Your task to perform on an android device: turn on wifi Image 0: 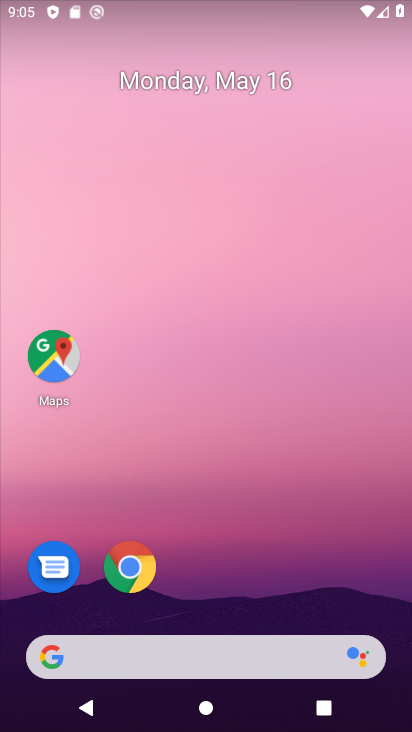
Step 0: drag from (204, 599) to (174, 80)
Your task to perform on an android device: turn on wifi Image 1: 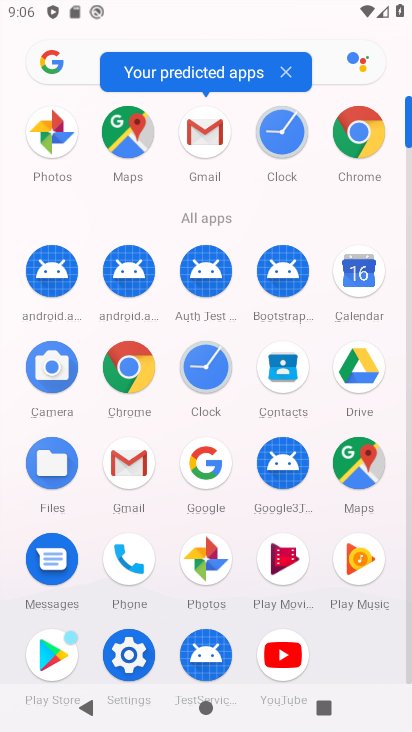
Step 1: click (120, 667)
Your task to perform on an android device: turn on wifi Image 2: 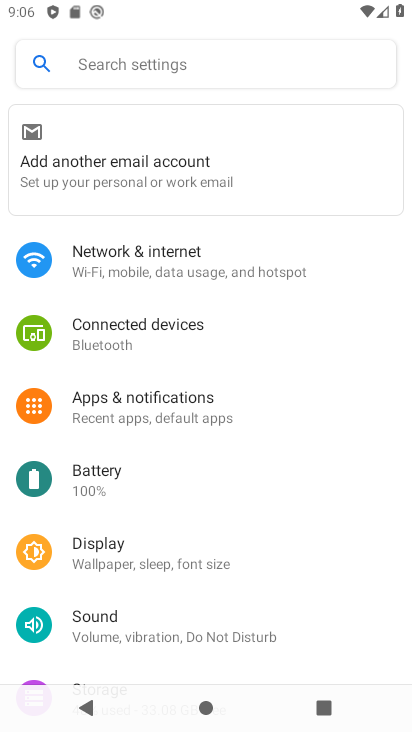
Step 2: click (162, 269)
Your task to perform on an android device: turn on wifi Image 3: 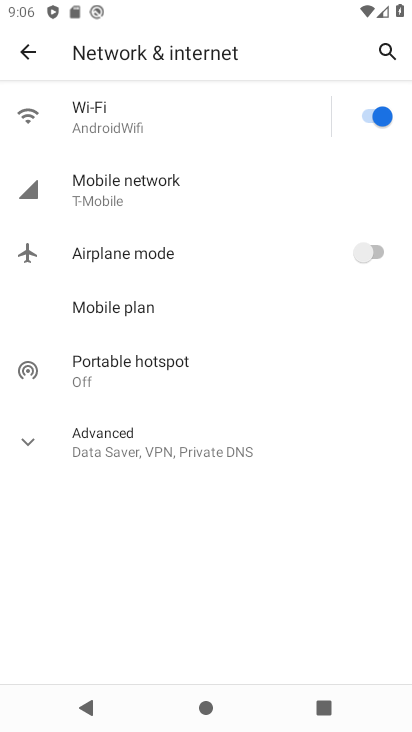
Step 3: task complete